Your task to perform on an android device: check google app version Image 0: 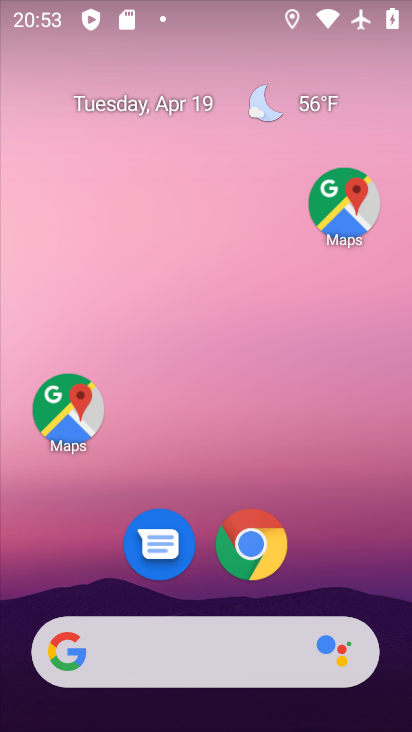
Step 0: drag from (215, 659) to (362, 115)
Your task to perform on an android device: check google app version Image 1: 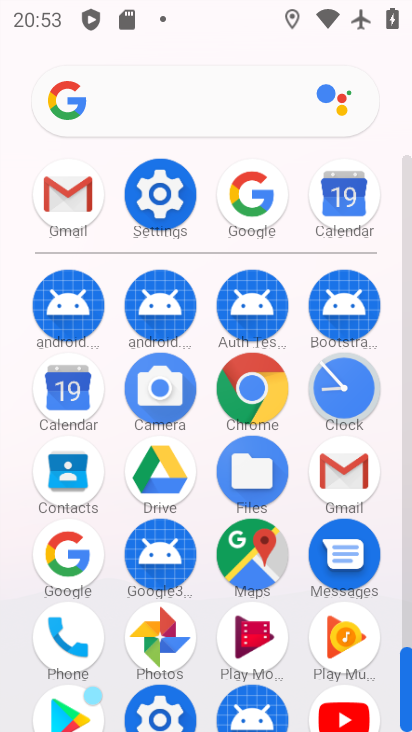
Step 1: click (66, 564)
Your task to perform on an android device: check google app version Image 2: 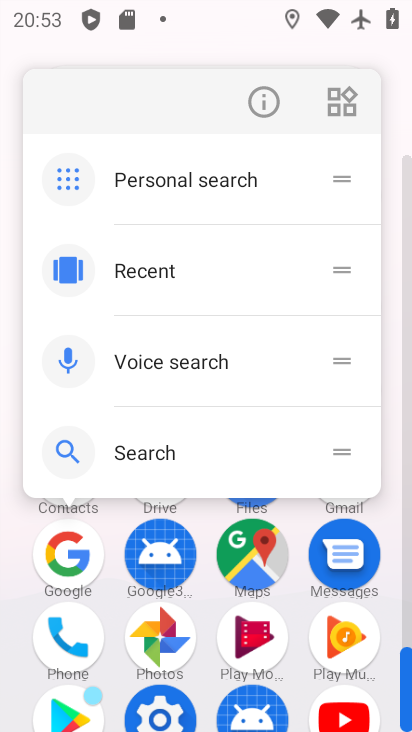
Step 2: click (264, 101)
Your task to perform on an android device: check google app version Image 3: 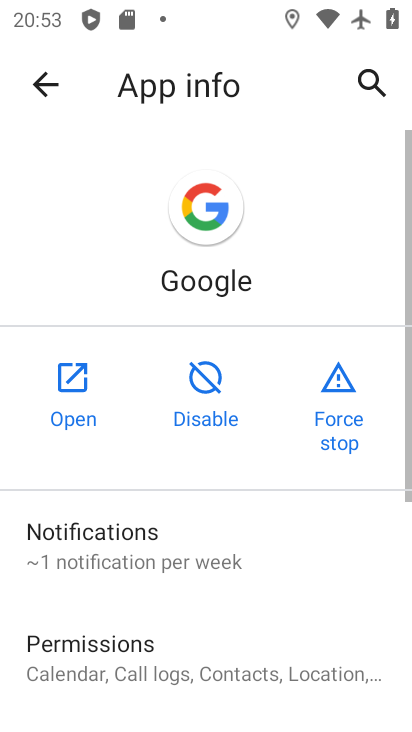
Step 3: drag from (193, 495) to (338, 19)
Your task to perform on an android device: check google app version Image 4: 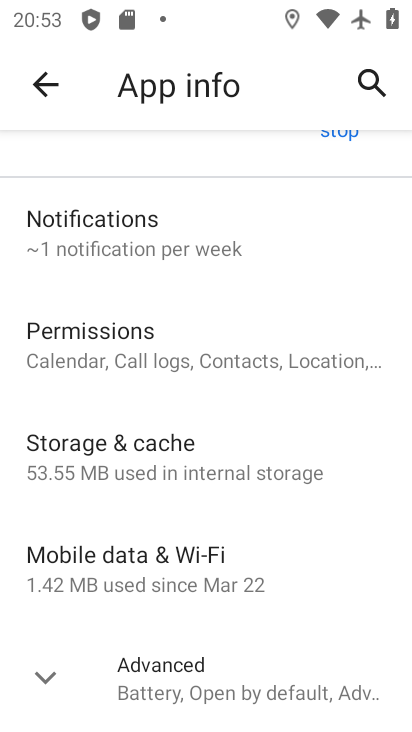
Step 4: drag from (188, 631) to (367, 174)
Your task to perform on an android device: check google app version Image 5: 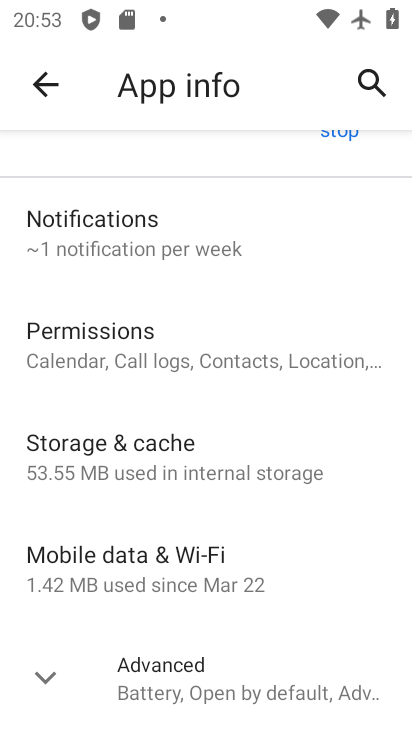
Step 5: click (127, 667)
Your task to perform on an android device: check google app version Image 6: 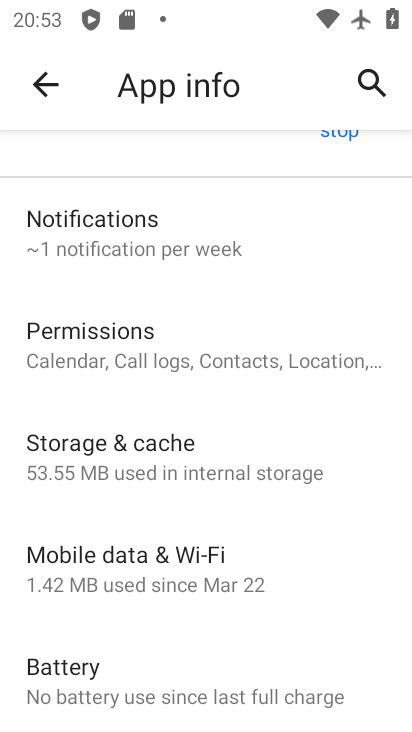
Step 6: task complete